Your task to perform on an android device: What's the weather going to be tomorrow? Image 0: 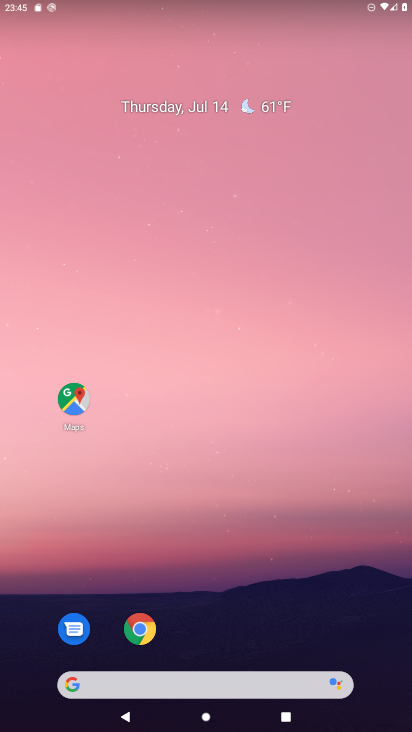
Step 0: click (192, 685)
Your task to perform on an android device: What's the weather going to be tomorrow? Image 1: 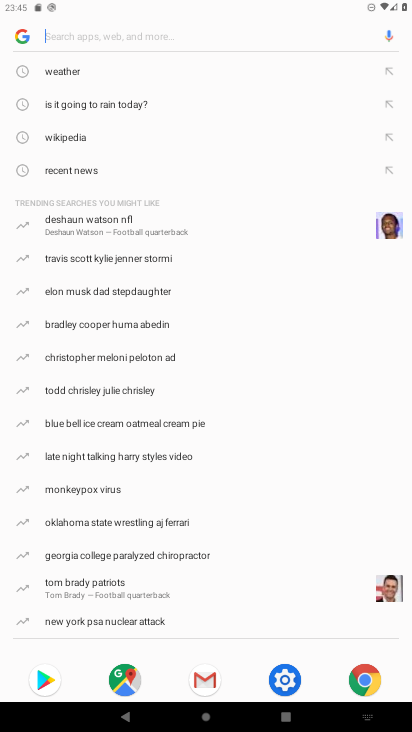
Step 1: click (160, 72)
Your task to perform on an android device: What's the weather going to be tomorrow? Image 2: 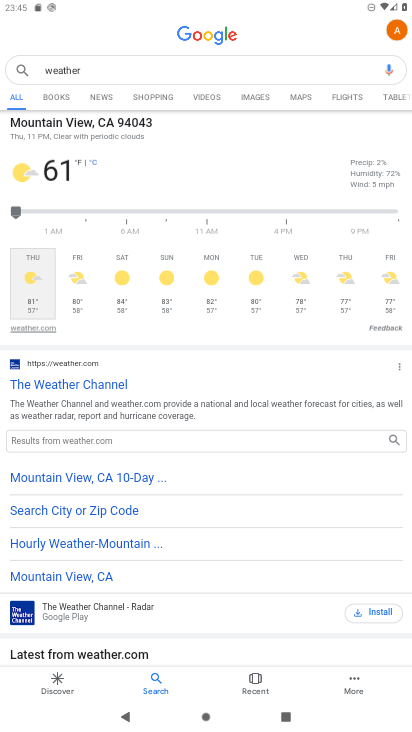
Step 2: task complete